Your task to perform on an android device: toggle data saver in the chrome app Image 0: 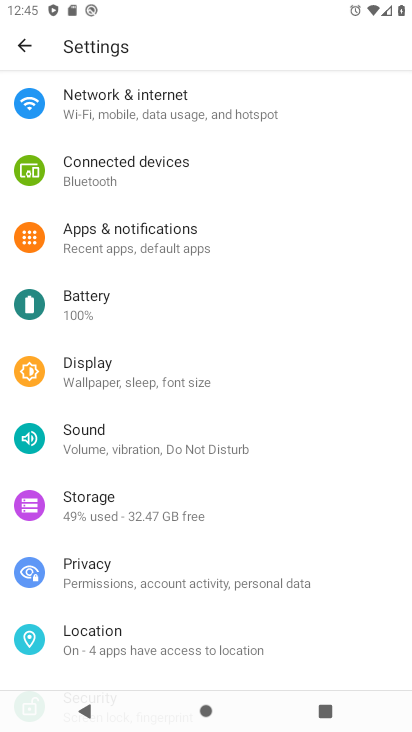
Step 0: press home button
Your task to perform on an android device: toggle data saver in the chrome app Image 1: 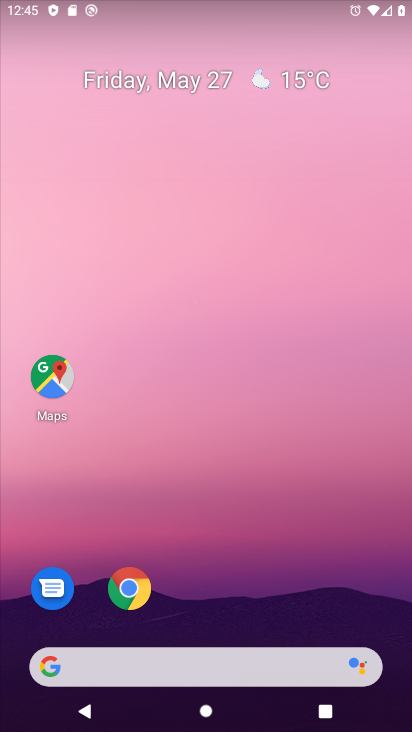
Step 1: click (131, 587)
Your task to perform on an android device: toggle data saver in the chrome app Image 2: 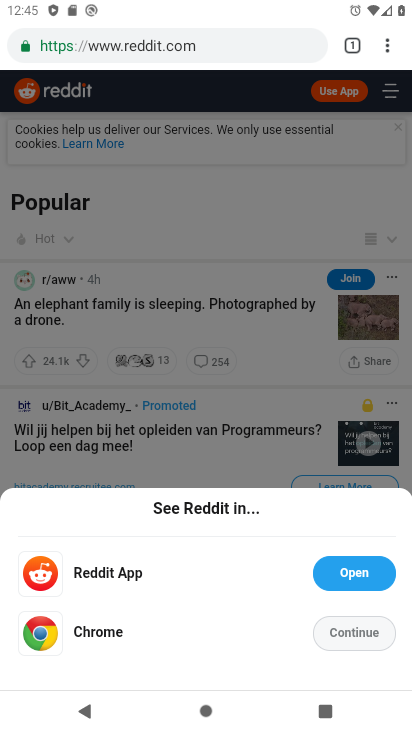
Step 2: click (388, 50)
Your task to perform on an android device: toggle data saver in the chrome app Image 3: 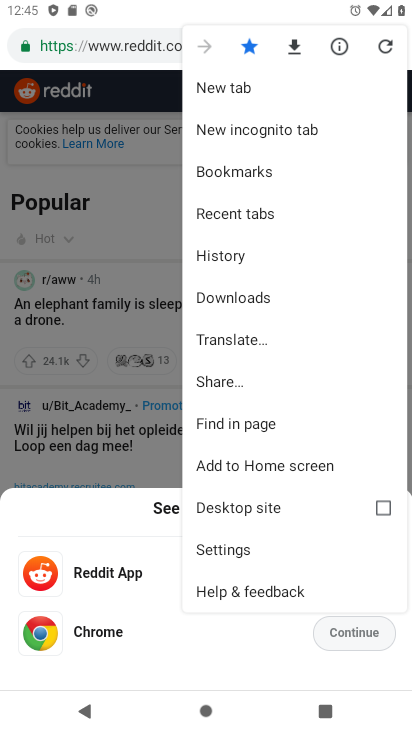
Step 3: click (255, 553)
Your task to perform on an android device: toggle data saver in the chrome app Image 4: 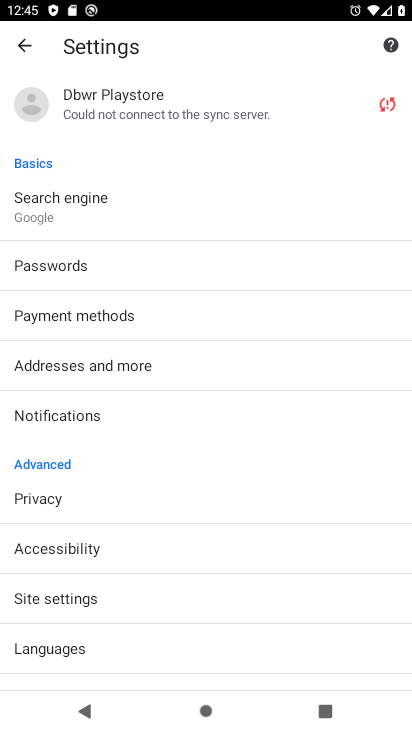
Step 4: drag from (156, 623) to (169, 202)
Your task to perform on an android device: toggle data saver in the chrome app Image 5: 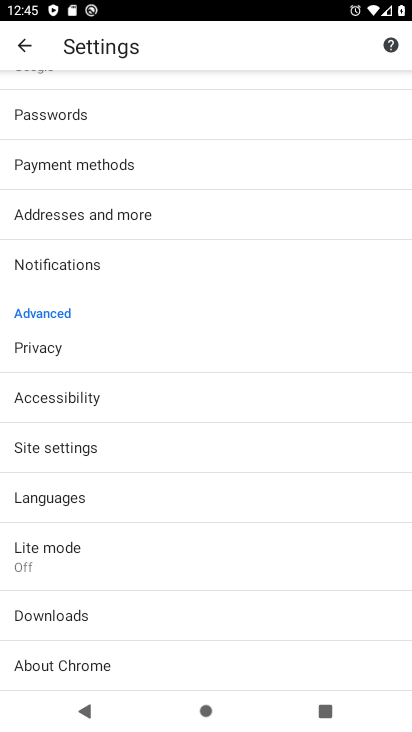
Step 5: click (52, 550)
Your task to perform on an android device: toggle data saver in the chrome app Image 6: 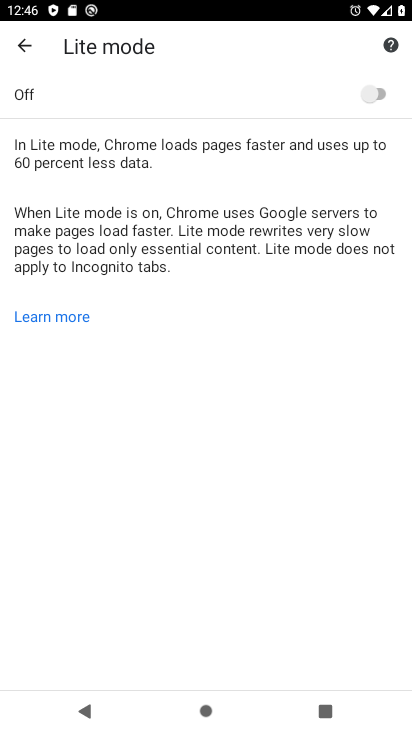
Step 6: click (374, 85)
Your task to perform on an android device: toggle data saver in the chrome app Image 7: 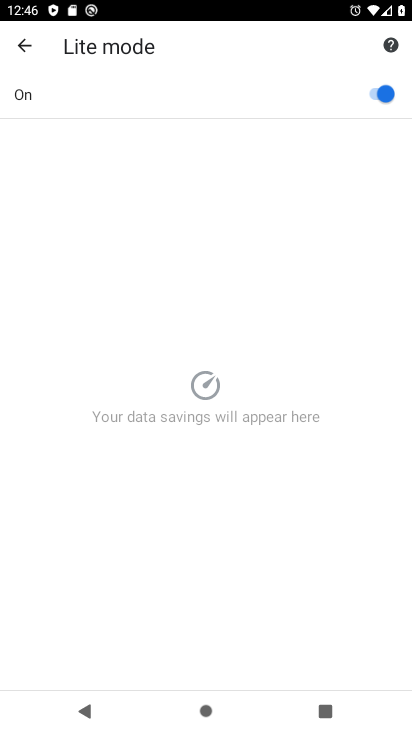
Step 7: task complete